Your task to perform on an android device: Go to display settings Image 0: 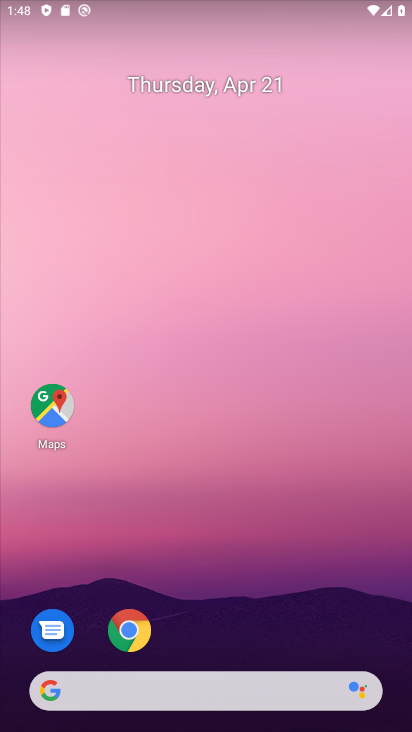
Step 0: click (236, 409)
Your task to perform on an android device: Go to display settings Image 1: 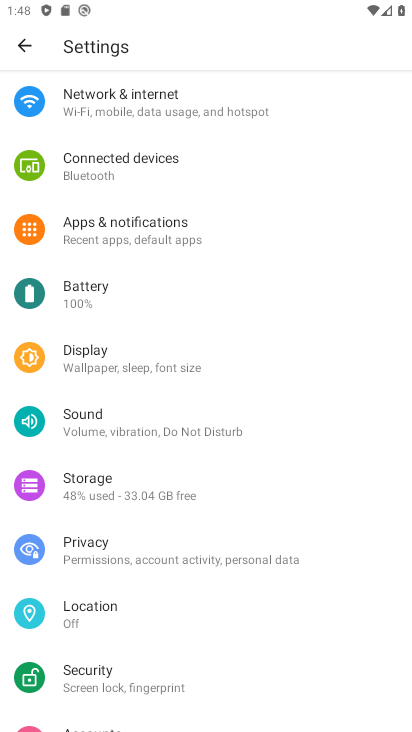
Step 1: click (83, 362)
Your task to perform on an android device: Go to display settings Image 2: 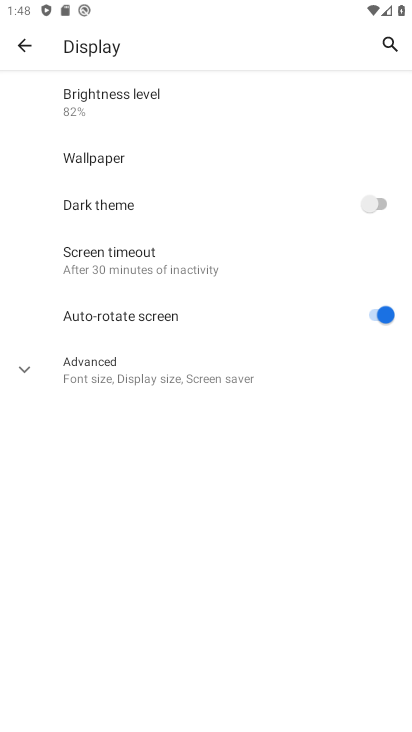
Step 2: click (30, 369)
Your task to perform on an android device: Go to display settings Image 3: 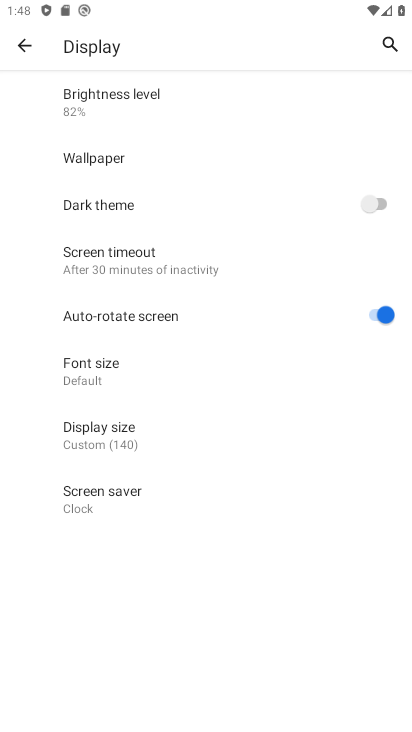
Step 3: task complete